Your task to perform on an android device: change notifications settings Image 0: 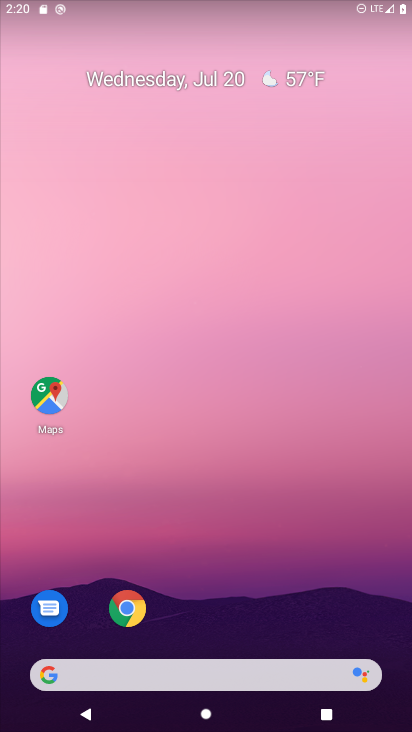
Step 0: drag from (246, 727) to (208, 81)
Your task to perform on an android device: change notifications settings Image 1: 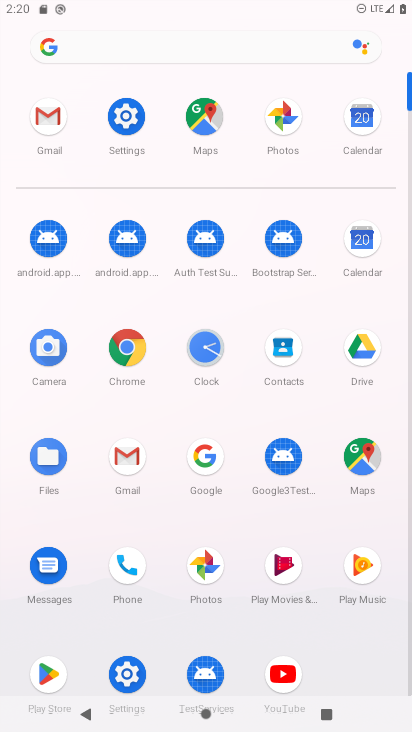
Step 1: click (136, 111)
Your task to perform on an android device: change notifications settings Image 2: 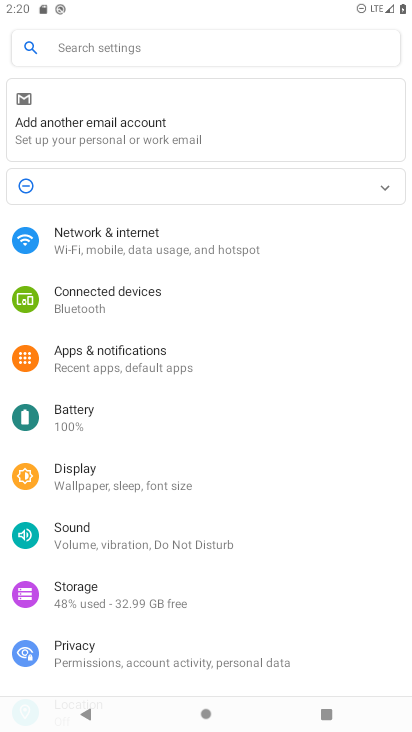
Step 2: click (112, 355)
Your task to perform on an android device: change notifications settings Image 3: 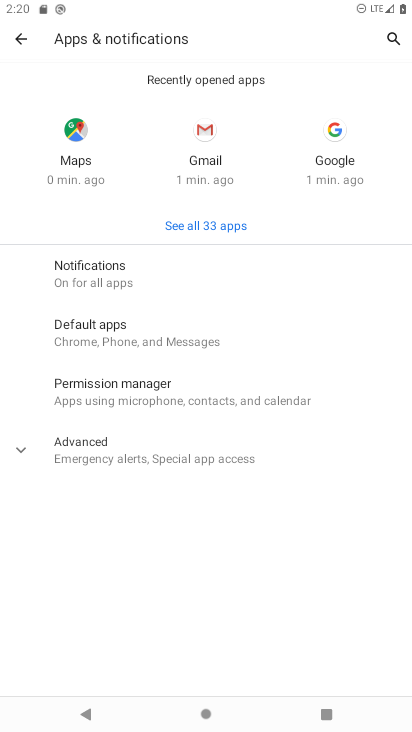
Step 3: click (81, 273)
Your task to perform on an android device: change notifications settings Image 4: 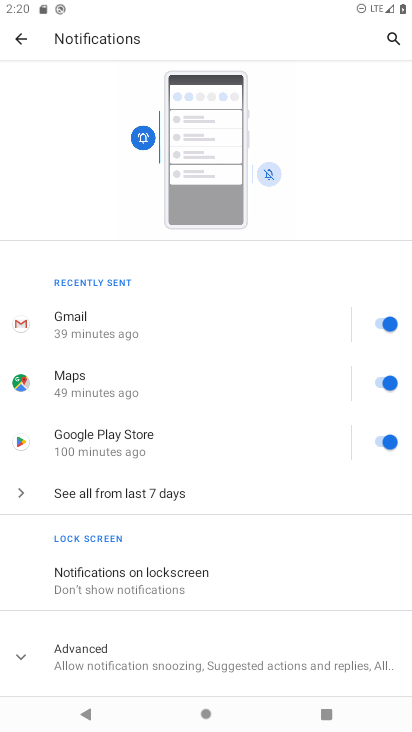
Step 4: click (143, 656)
Your task to perform on an android device: change notifications settings Image 5: 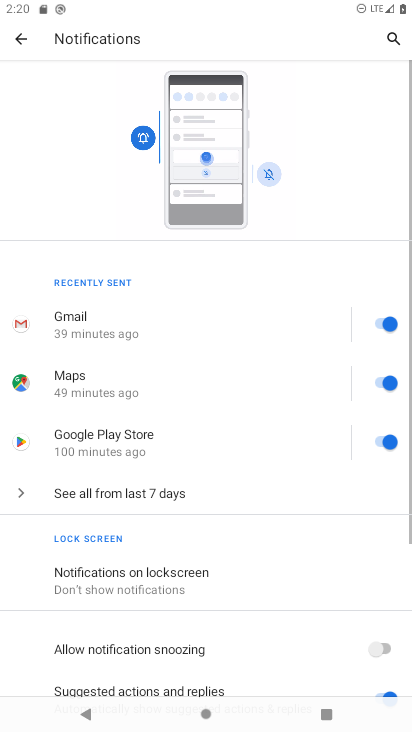
Step 5: click (386, 648)
Your task to perform on an android device: change notifications settings Image 6: 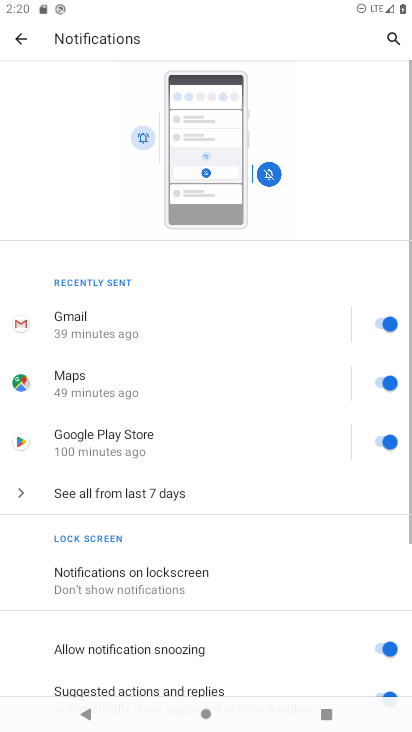
Step 6: task complete